Your task to perform on an android device: Find coffee shops on Maps Image 0: 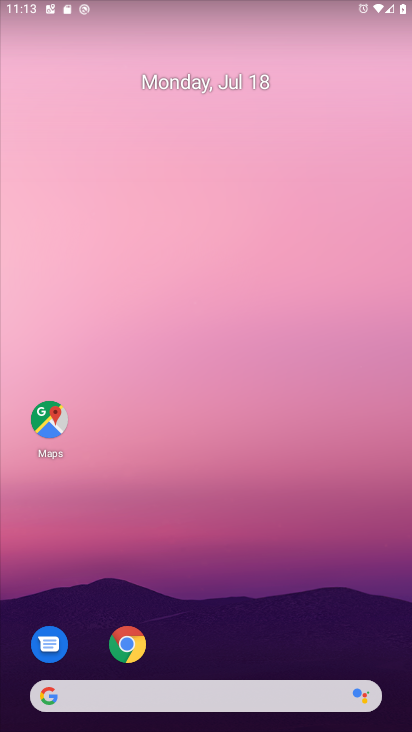
Step 0: click (52, 444)
Your task to perform on an android device: Find coffee shops on Maps Image 1: 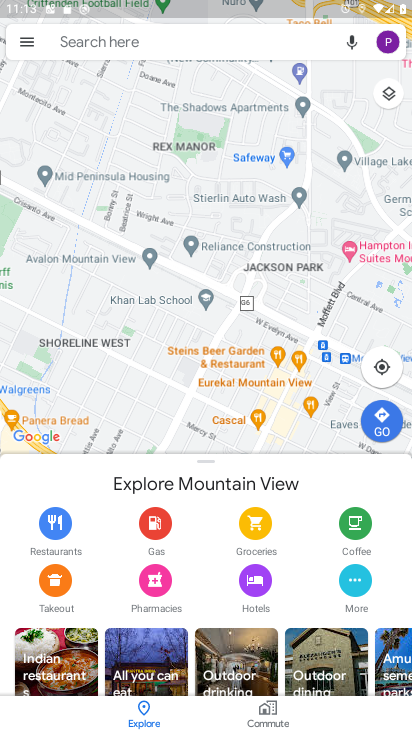
Step 1: task complete